Your task to perform on an android device: Open the map Image 0: 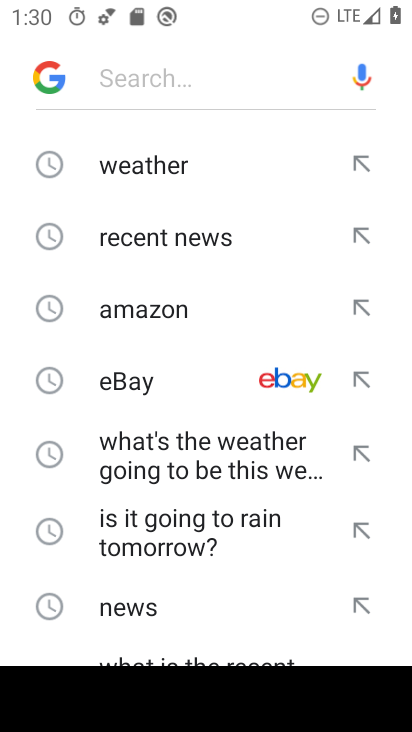
Step 0: press home button
Your task to perform on an android device: Open the map Image 1: 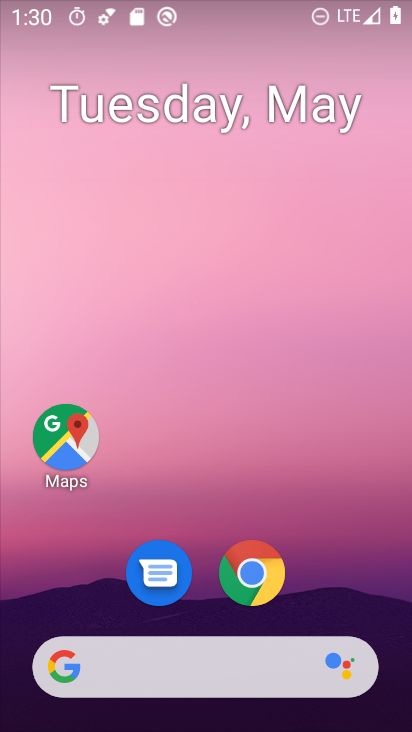
Step 1: drag from (363, 604) to (354, 166)
Your task to perform on an android device: Open the map Image 2: 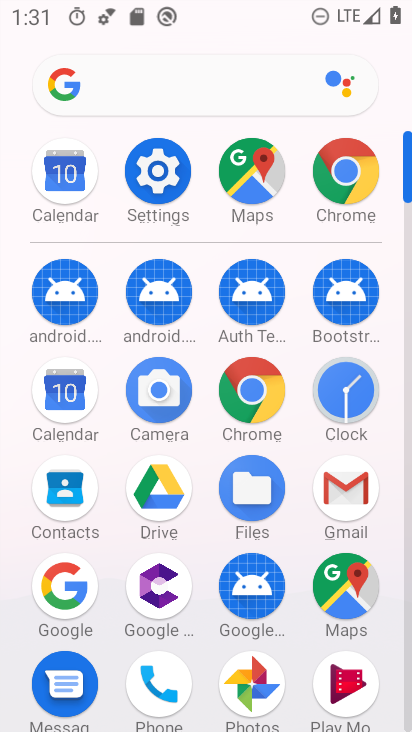
Step 2: click (260, 177)
Your task to perform on an android device: Open the map Image 3: 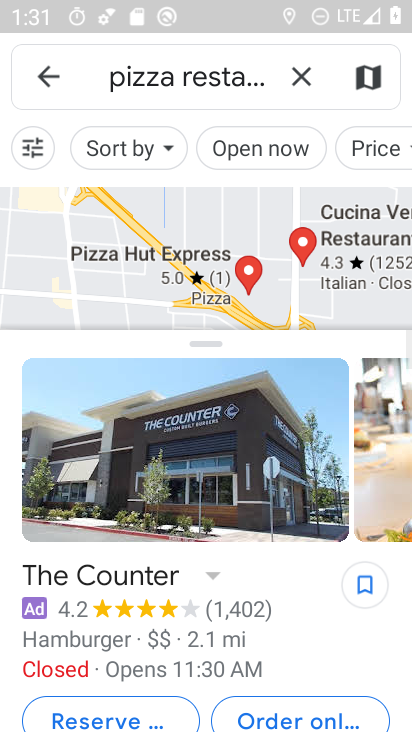
Step 3: task complete